Your task to perform on an android device: Open the calendar app, open the side menu, and click the "Day" option Image 0: 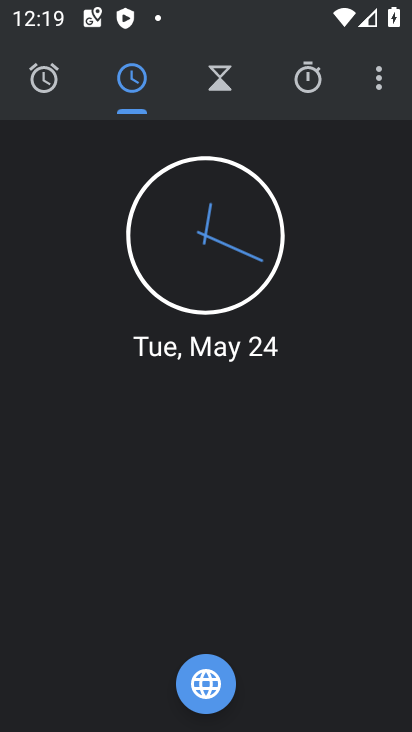
Step 0: press home button
Your task to perform on an android device: Open the calendar app, open the side menu, and click the "Day" option Image 1: 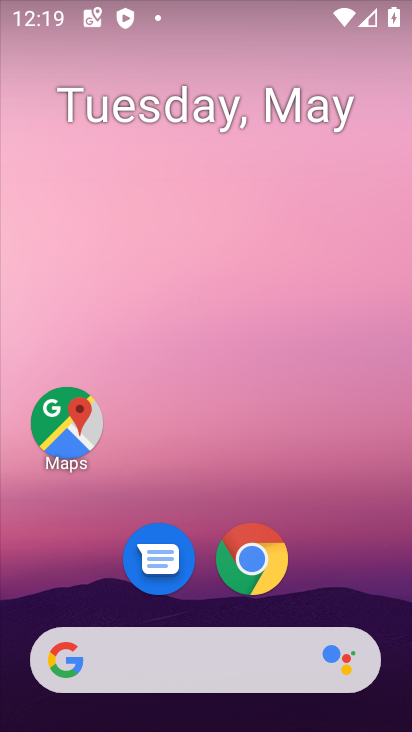
Step 1: drag from (356, 563) to (344, 32)
Your task to perform on an android device: Open the calendar app, open the side menu, and click the "Day" option Image 2: 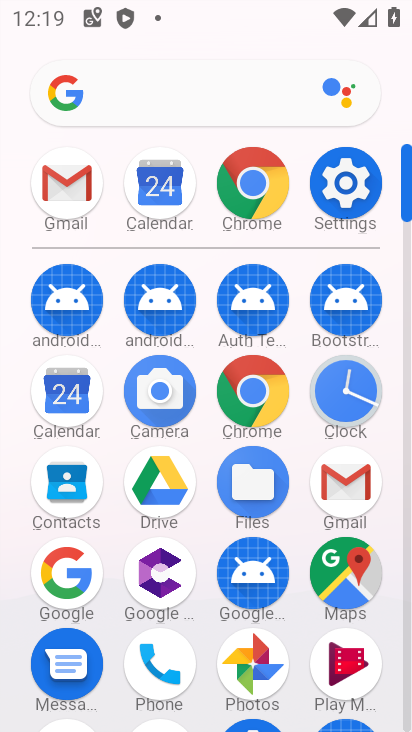
Step 2: click (146, 195)
Your task to perform on an android device: Open the calendar app, open the side menu, and click the "Day" option Image 3: 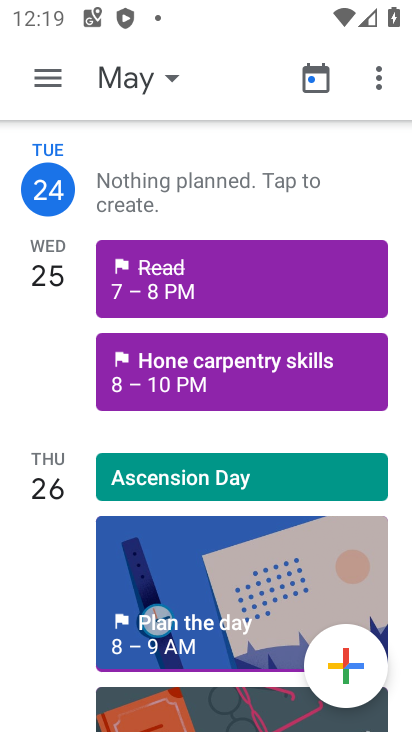
Step 3: click (42, 100)
Your task to perform on an android device: Open the calendar app, open the side menu, and click the "Day" option Image 4: 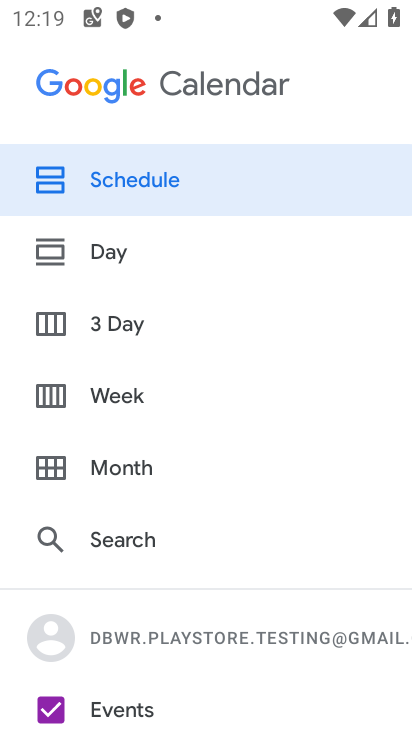
Step 4: click (111, 241)
Your task to perform on an android device: Open the calendar app, open the side menu, and click the "Day" option Image 5: 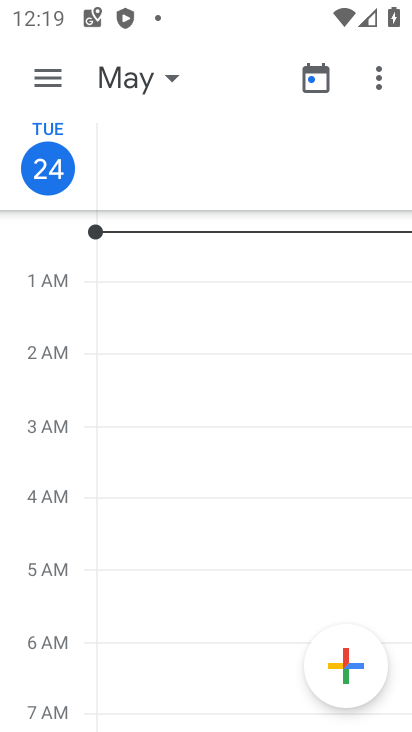
Step 5: task complete